Your task to perform on an android device: clear all cookies in the chrome app Image 0: 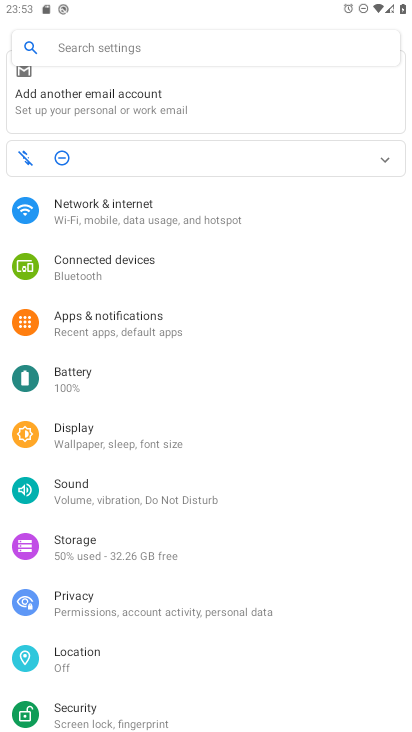
Step 0: press home button
Your task to perform on an android device: clear all cookies in the chrome app Image 1: 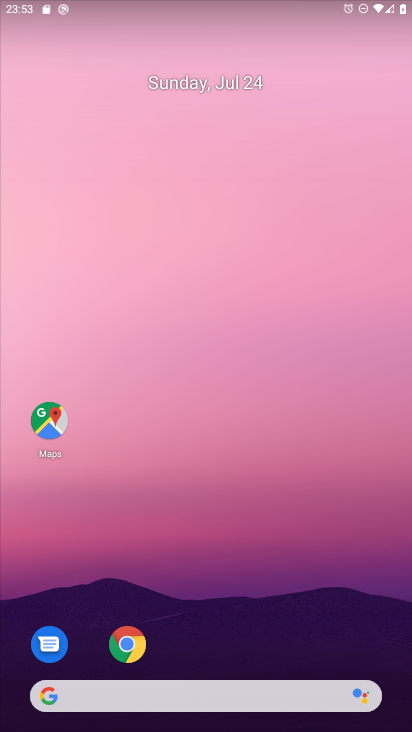
Step 1: click (131, 643)
Your task to perform on an android device: clear all cookies in the chrome app Image 2: 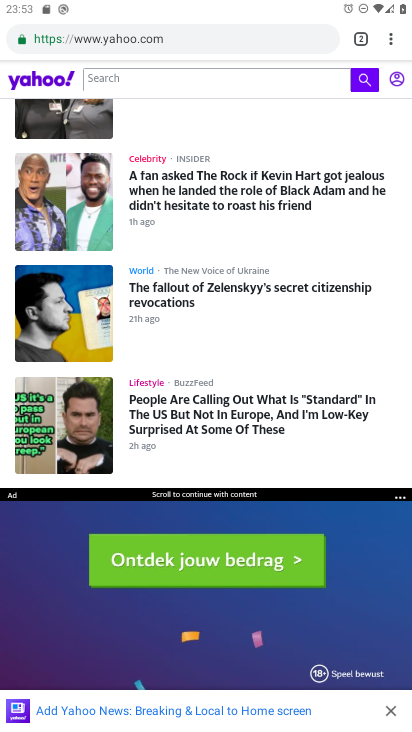
Step 2: click (388, 42)
Your task to perform on an android device: clear all cookies in the chrome app Image 3: 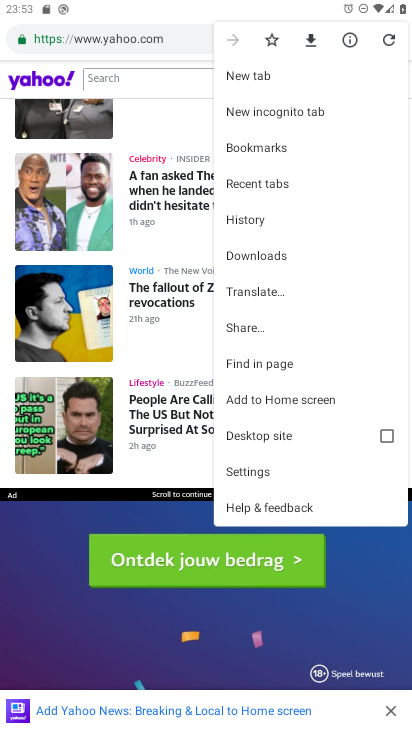
Step 3: click (246, 216)
Your task to perform on an android device: clear all cookies in the chrome app Image 4: 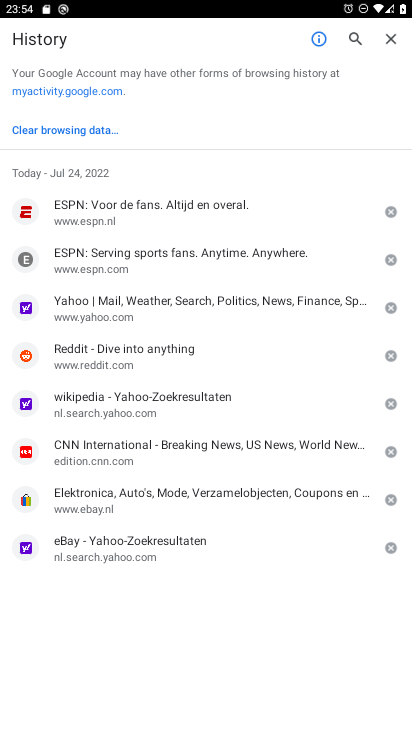
Step 4: click (70, 127)
Your task to perform on an android device: clear all cookies in the chrome app Image 5: 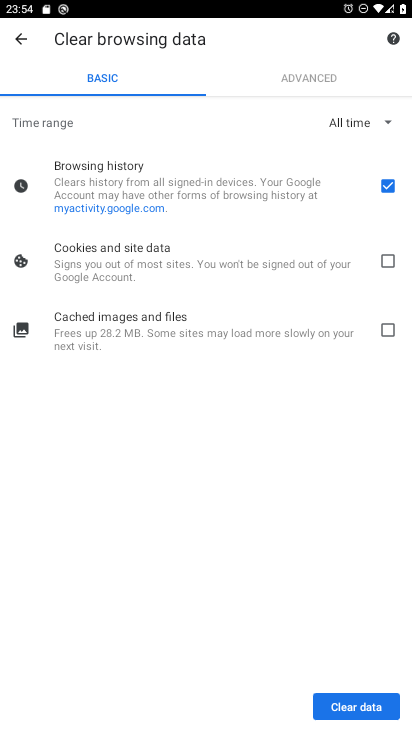
Step 5: click (386, 256)
Your task to perform on an android device: clear all cookies in the chrome app Image 6: 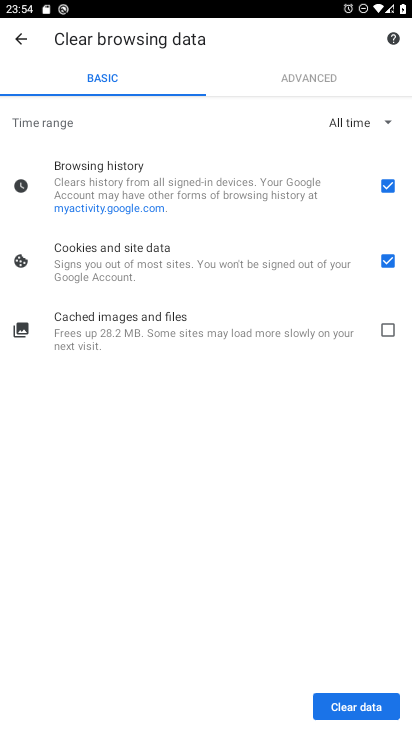
Step 6: click (387, 181)
Your task to perform on an android device: clear all cookies in the chrome app Image 7: 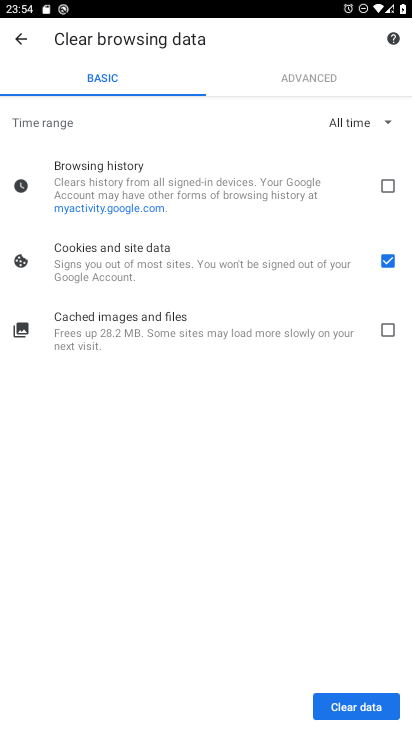
Step 7: click (364, 700)
Your task to perform on an android device: clear all cookies in the chrome app Image 8: 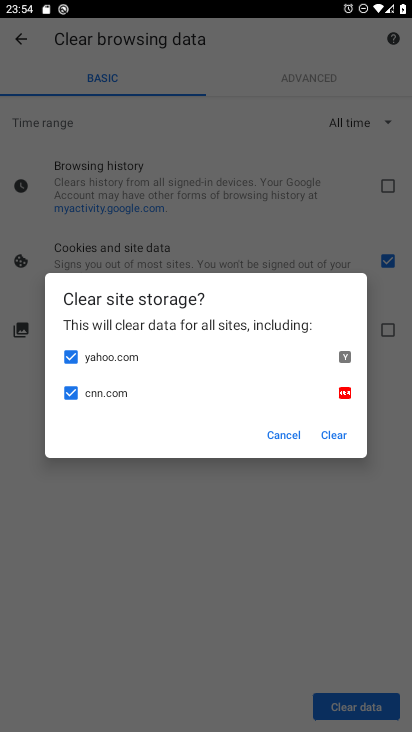
Step 8: click (330, 430)
Your task to perform on an android device: clear all cookies in the chrome app Image 9: 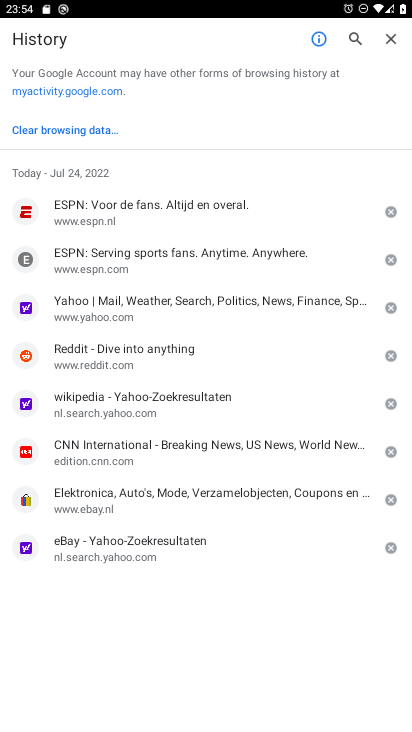
Step 9: task complete